Your task to perform on an android device: Do I have any events this weekend? Image 0: 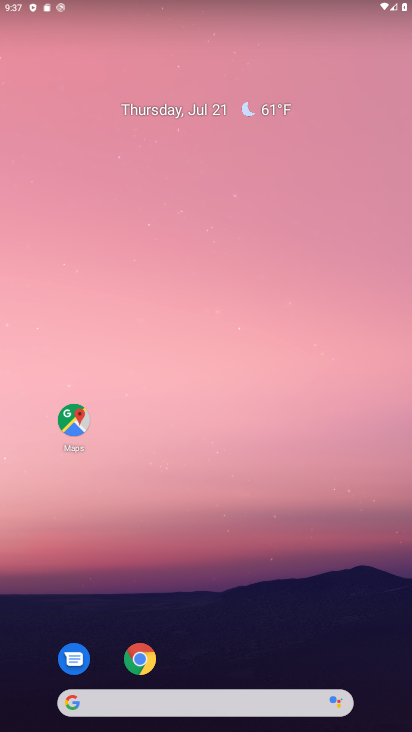
Step 0: click (167, 9)
Your task to perform on an android device: Do I have any events this weekend? Image 1: 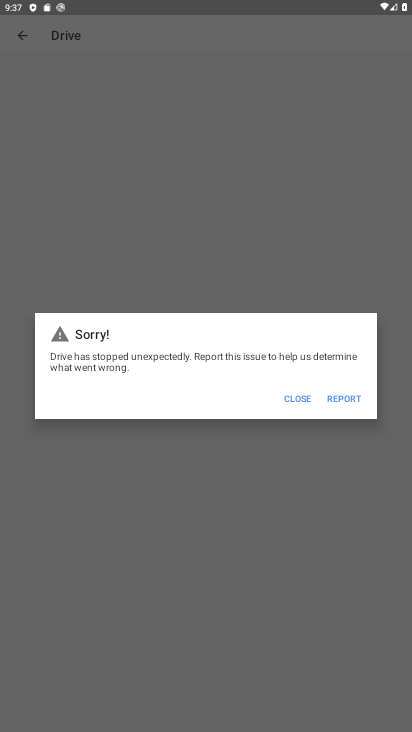
Step 1: press home button
Your task to perform on an android device: Do I have any events this weekend? Image 2: 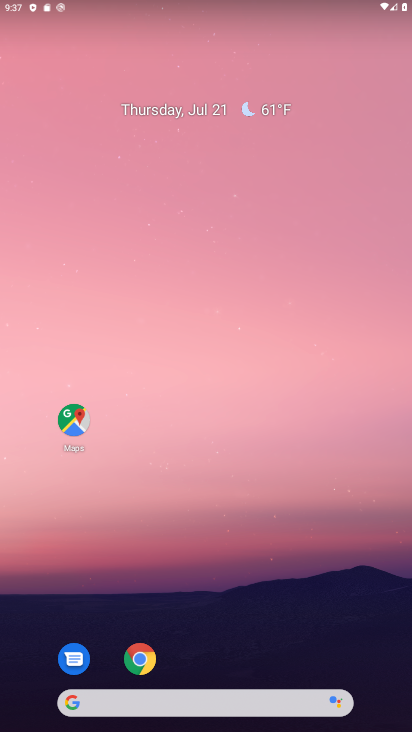
Step 2: drag from (46, 719) to (130, 182)
Your task to perform on an android device: Do I have any events this weekend? Image 3: 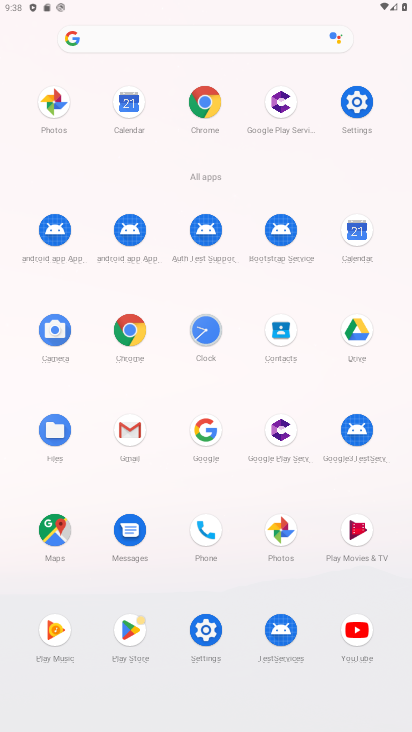
Step 3: click (354, 225)
Your task to perform on an android device: Do I have any events this weekend? Image 4: 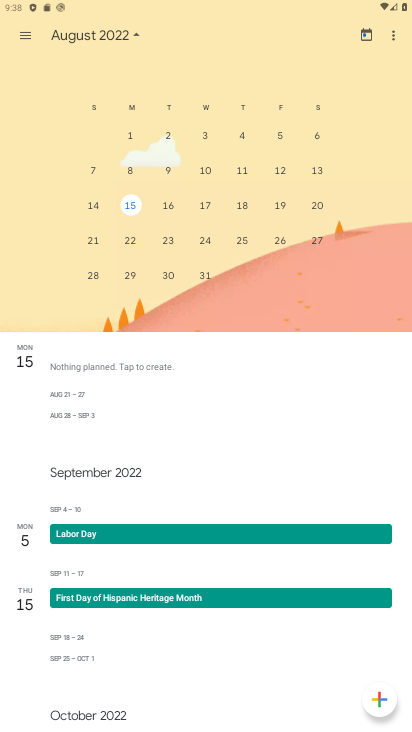
Step 4: task complete